Your task to perform on an android device: change notification settings in the gmail app Image 0: 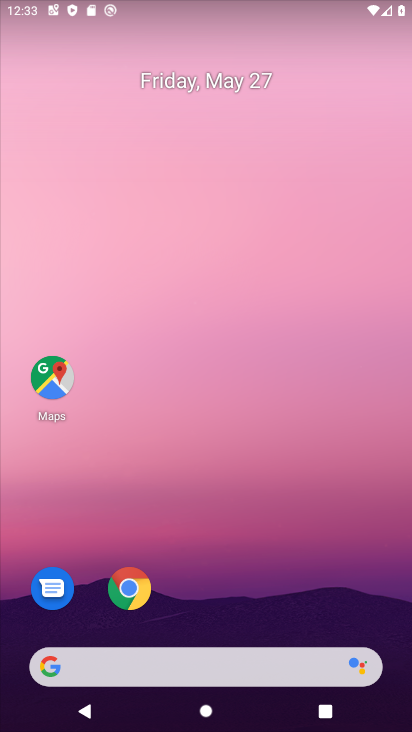
Step 0: drag from (144, 727) to (139, 126)
Your task to perform on an android device: change notification settings in the gmail app Image 1: 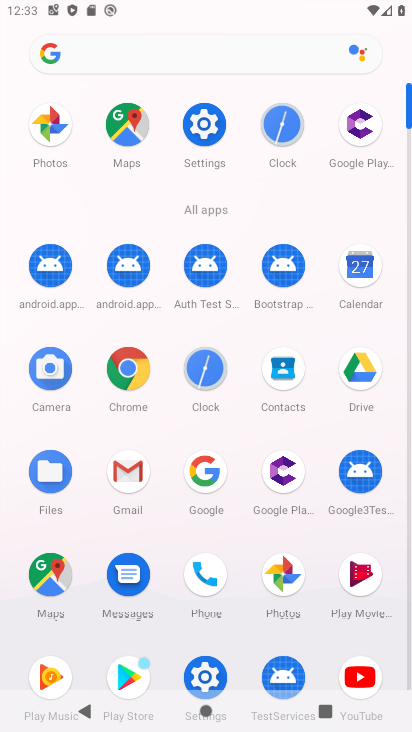
Step 1: click (132, 481)
Your task to perform on an android device: change notification settings in the gmail app Image 2: 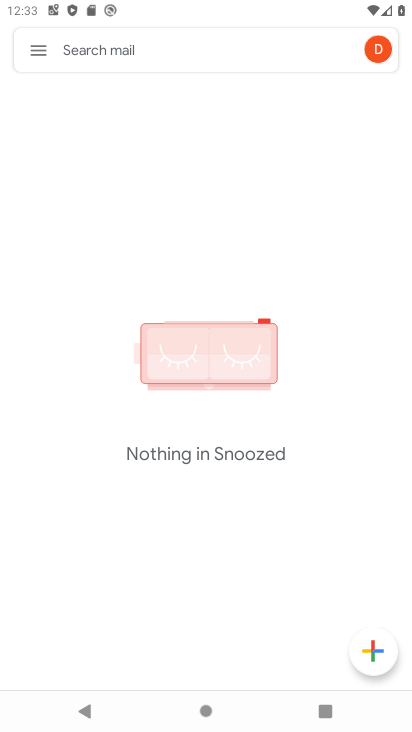
Step 2: click (44, 54)
Your task to perform on an android device: change notification settings in the gmail app Image 3: 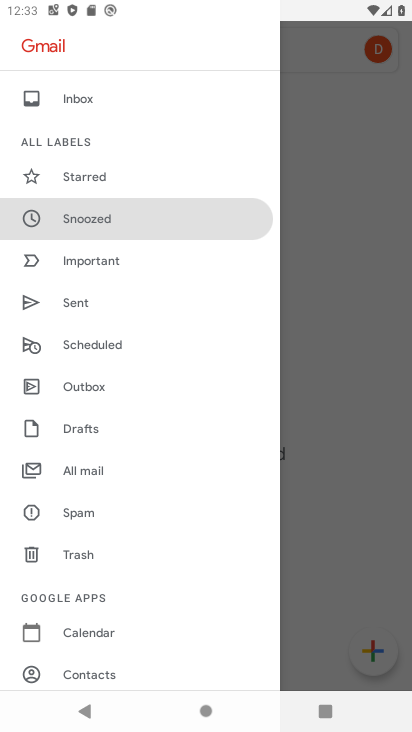
Step 3: drag from (154, 656) to (227, 351)
Your task to perform on an android device: change notification settings in the gmail app Image 4: 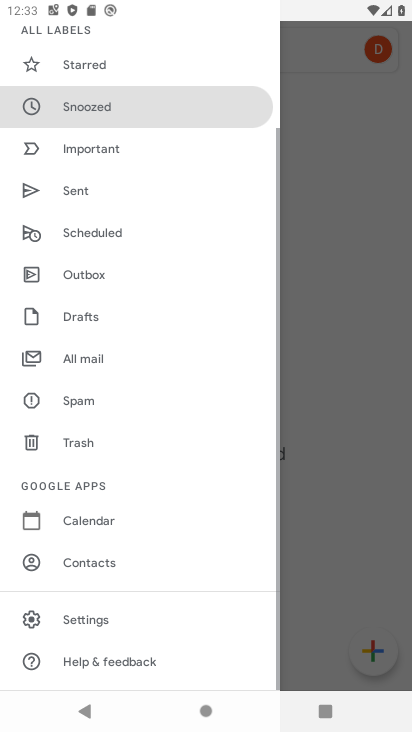
Step 4: click (97, 625)
Your task to perform on an android device: change notification settings in the gmail app Image 5: 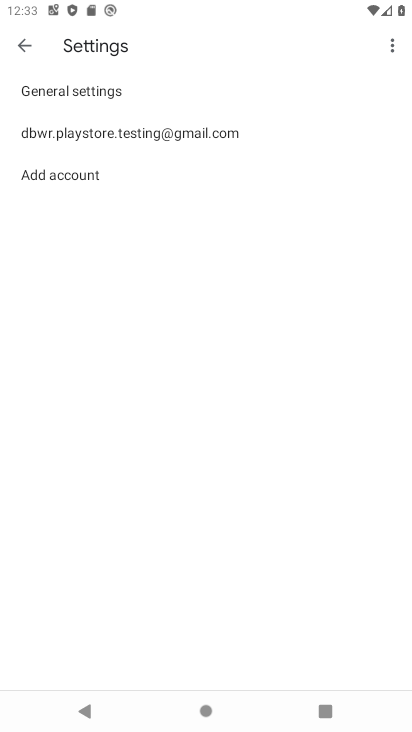
Step 5: click (85, 132)
Your task to perform on an android device: change notification settings in the gmail app Image 6: 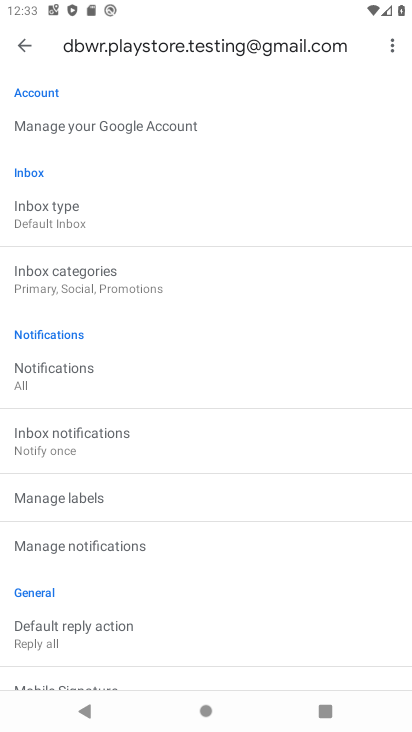
Step 6: click (85, 384)
Your task to perform on an android device: change notification settings in the gmail app Image 7: 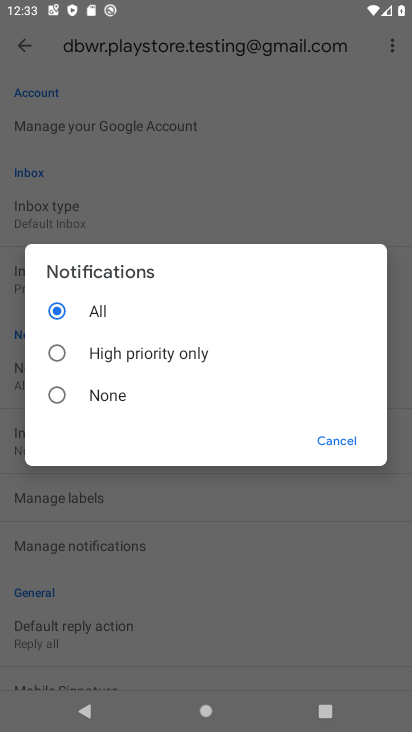
Step 7: click (105, 398)
Your task to perform on an android device: change notification settings in the gmail app Image 8: 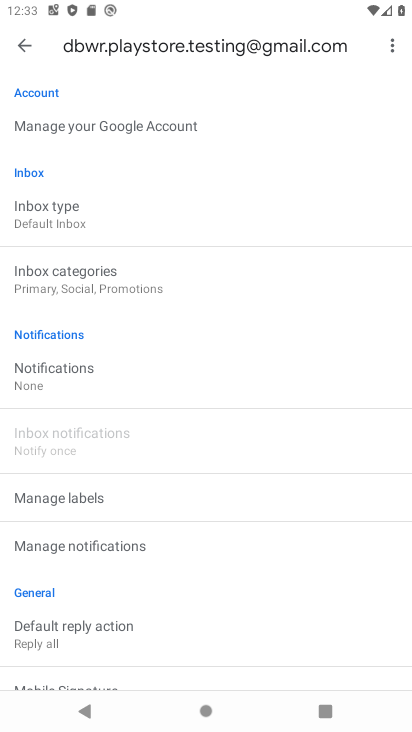
Step 8: task complete